Your task to perform on an android device: turn off location Image 0: 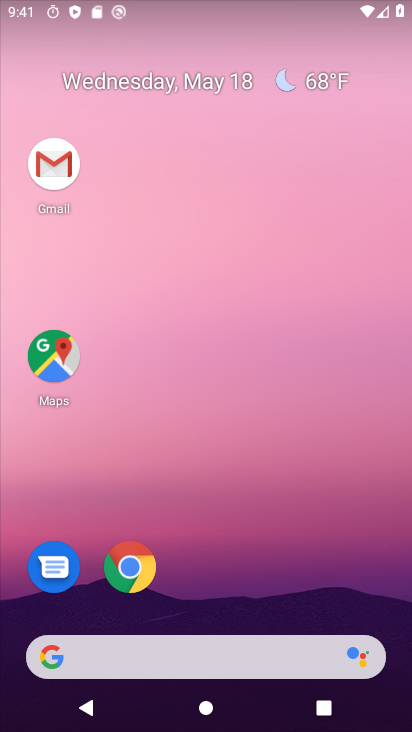
Step 0: drag from (244, 529) to (210, 106)
Your task to perform on an android device: turn off location Image 1: 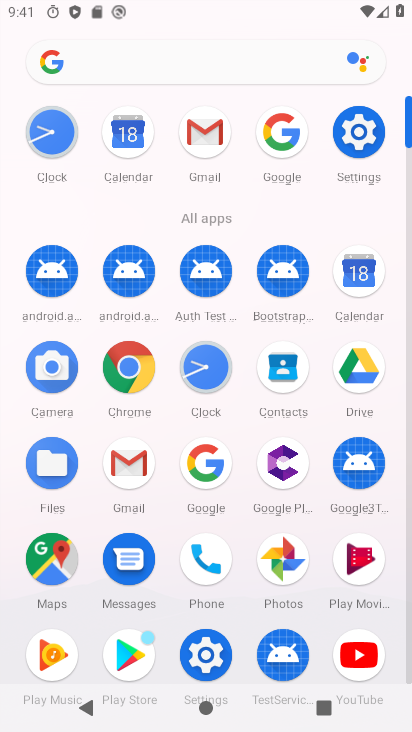
Step 1: drag from (357, 134) to (150, 194)
Your task to perform on an android device: turn off location Image 2: 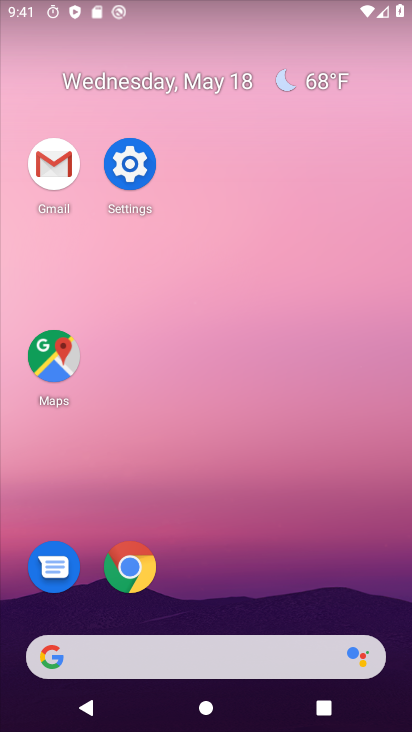
Step 2: click (132, 177)
Your task to perform on an android device: turn off location Image 3: 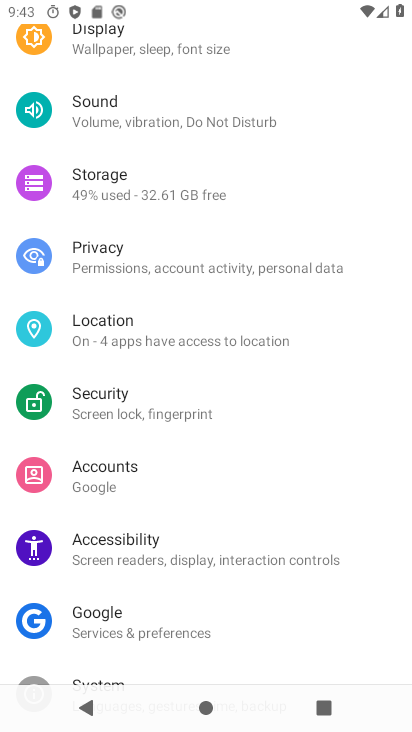
Step 3: click (121, 321)
Your task to perform on an android device: turn off location Image 4: 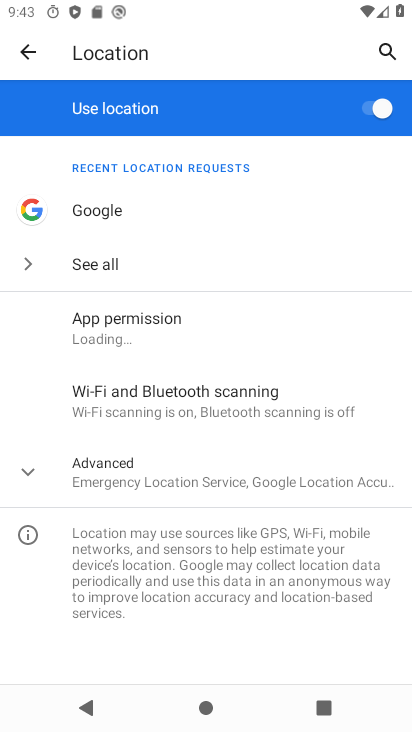
Step 4: click (384, 118)
Your task to perform on an android device: turn off location Image 5: 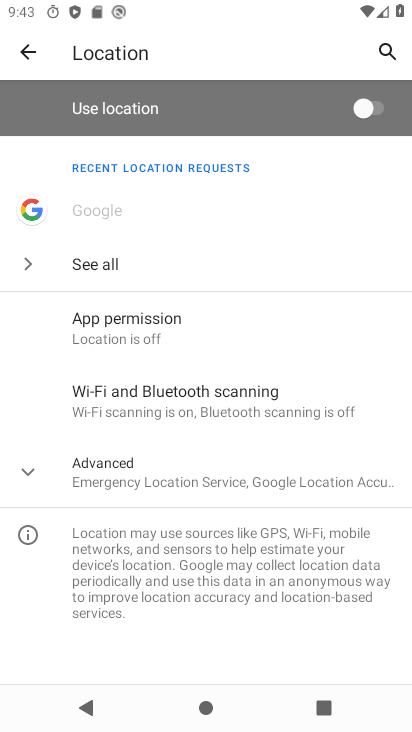
Step 5: task complete